Your task to perform on an android device: Open accessibility settings Image 0: 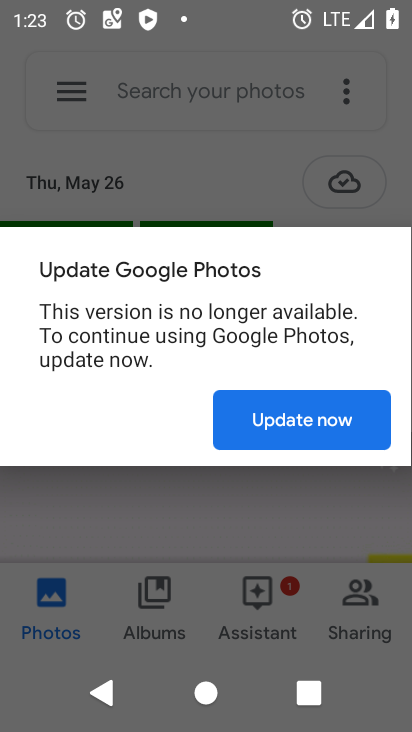
Step 0: press home button
Your task to perform on an android device: Open accessibility settings Image 1: 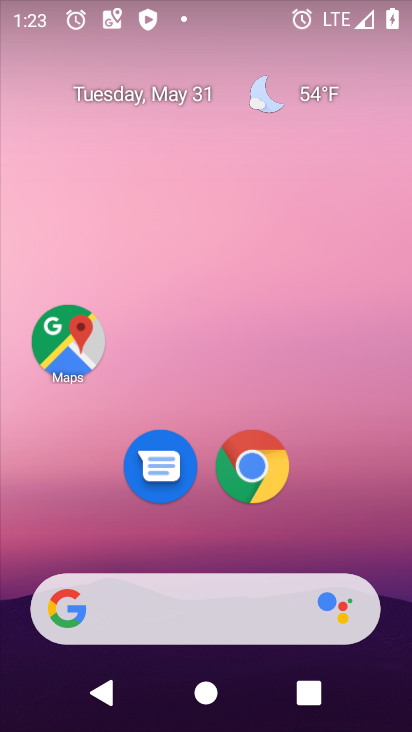
Step 1: drag from (204, 600) to (207, 69)
Your task to perform on an android device: Open accessibility settings Image 2: 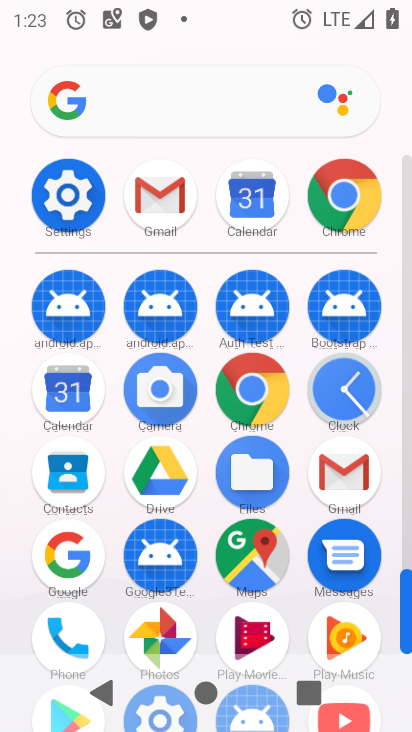
Step 2: click (90, 192)
Your task to perform on an android device: Open accessibility settings Image 3: 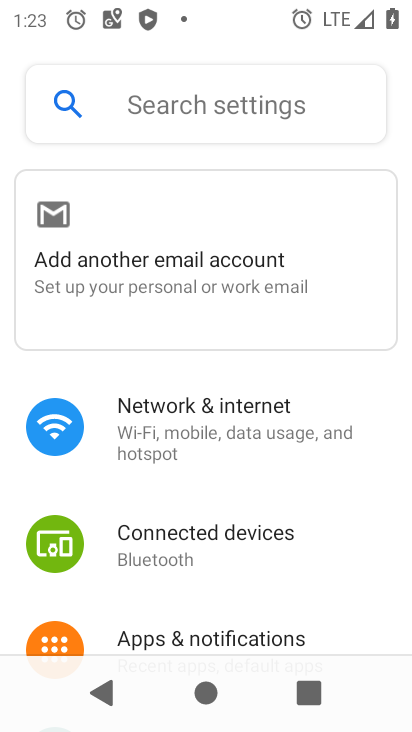
Step 3: drag from (147, 514) to (139, 2)
Your task to perform on an android device: Open accessibility settings Image 4: 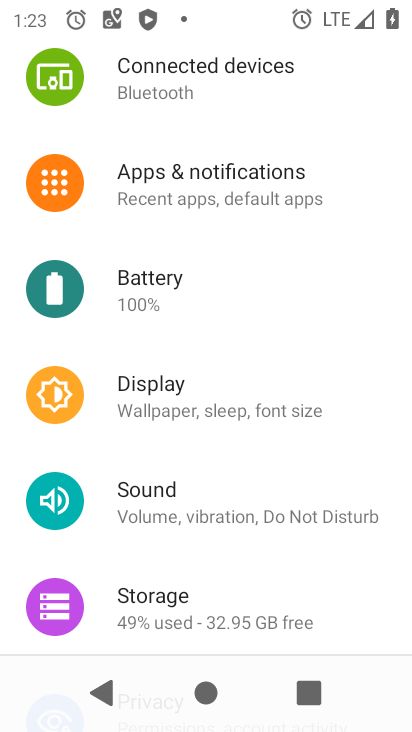
Step 4: drag from (124, 587) to (49, 3)
Your task to perform on an android device: Open accessibility settings Image 5: 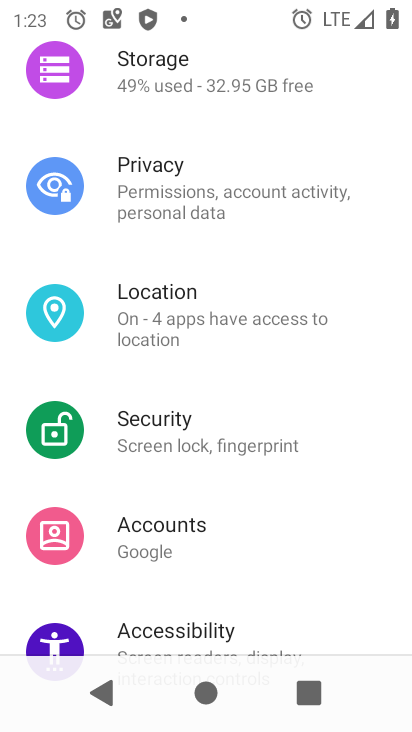
Step 5: click (183, 613)
Your task to perform on an android device: Open accessibility settings Image 6: 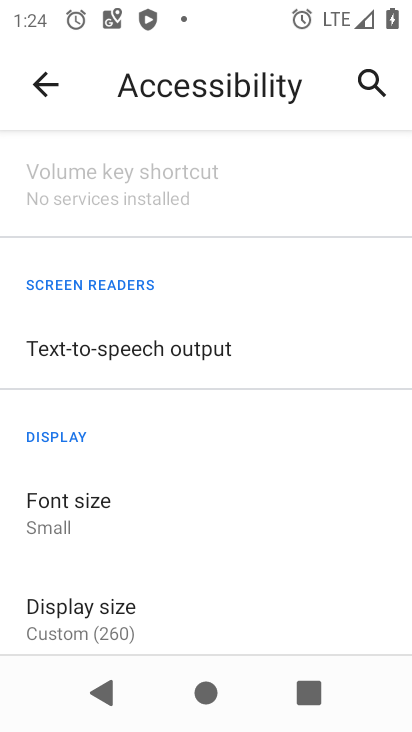
Step 6: task complete